Your task to perform on an android device: open device folders in google photos Image 0: 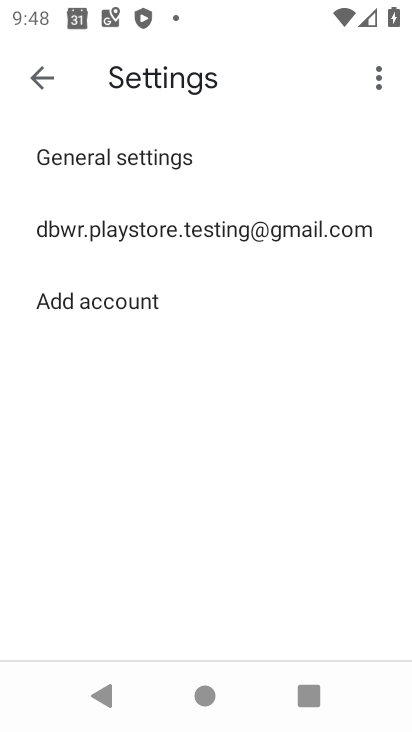
Step 0: press home button
Your task to perform on an android device: open device folders in google photos Image 1: 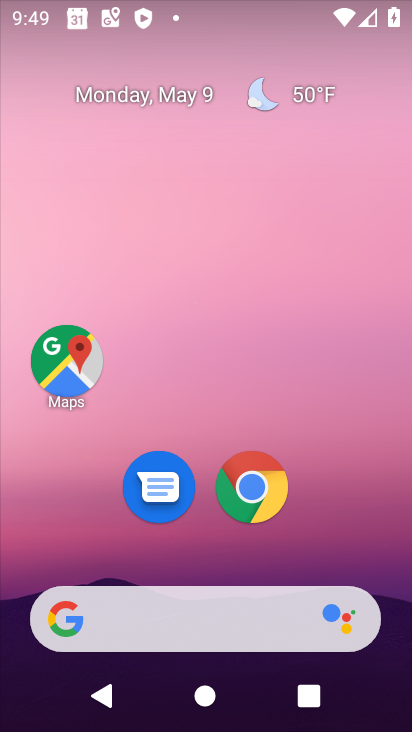
Step 1: drag from (53, 572) to (344, 136)
Your task to perform on an android device: open device folders in google photos Image 2: 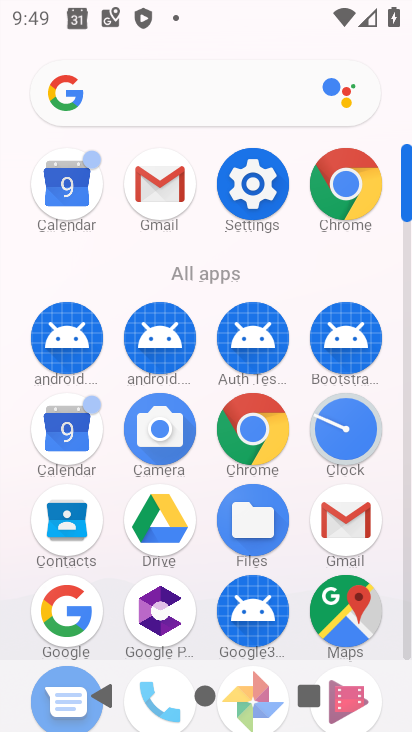
Step 2: drag from (13, 617) to (313, 250)
Your task to perform on an android device: open device folders in google photos Image 3: 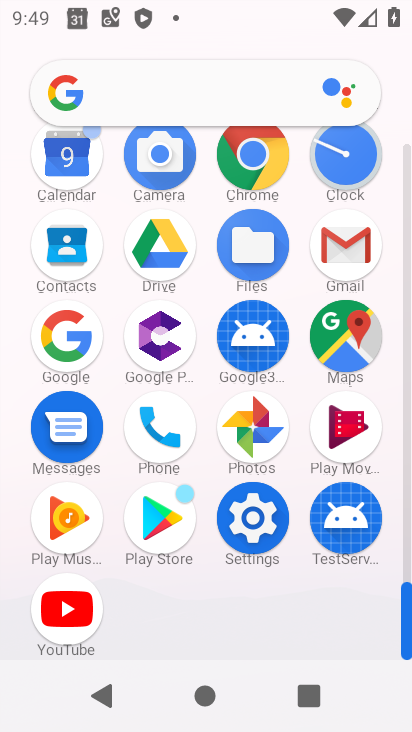
Step 3: click (257, 428)
Your task to perform on an android device: open device folders in google photos Image 4: 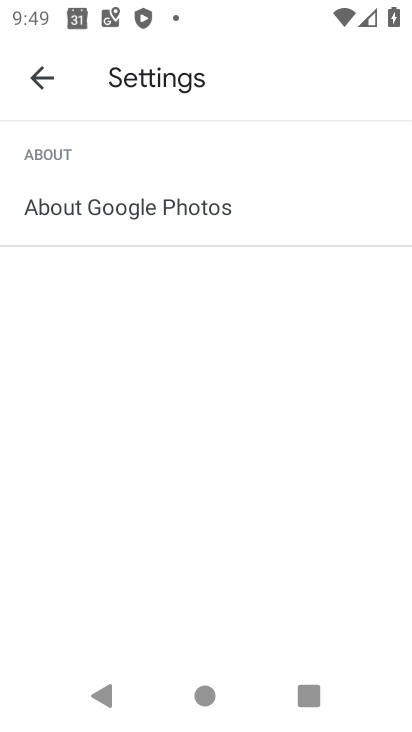
Step 4: press back button
Your task to perform on an android device: open device folders in google photos Image 5: 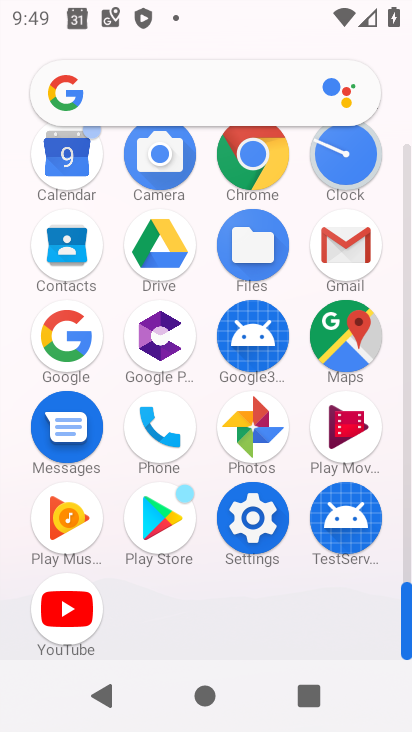
Step 5: click (260, 411)
Your task to perform on an android device: open device folders in google photos Image 6: 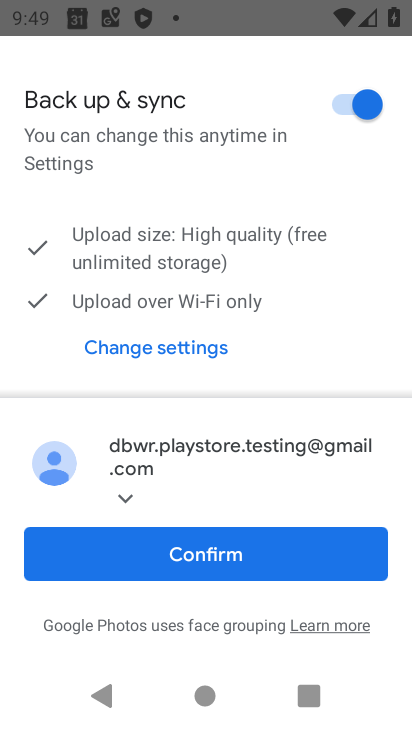
Step 6: click (112, 544)
Your task to perform on an android device: open device folders in google photos Image 7: 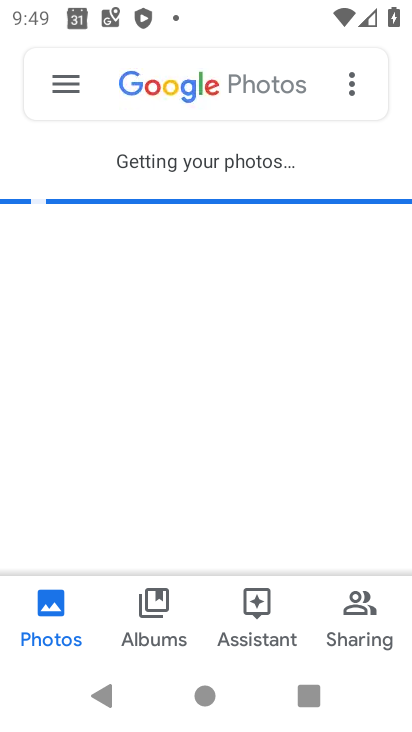
Step 7: click (29, 84)
Your task to perform on an android device: open device folders in google photos Image 8: 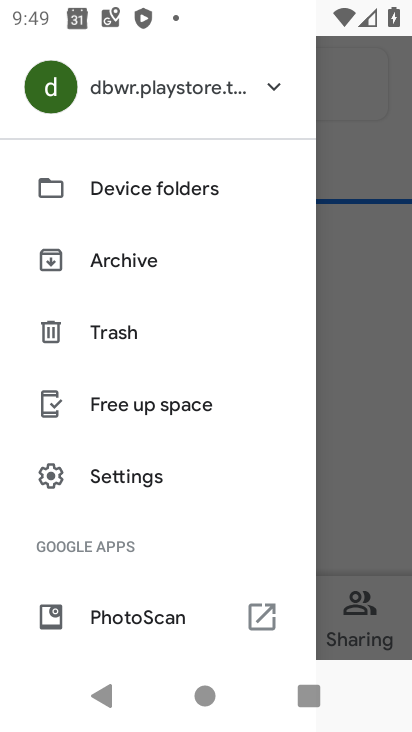
Step 8: click (128, 201)
Your task to perform on an android device: open device folders in google photos Image 9: 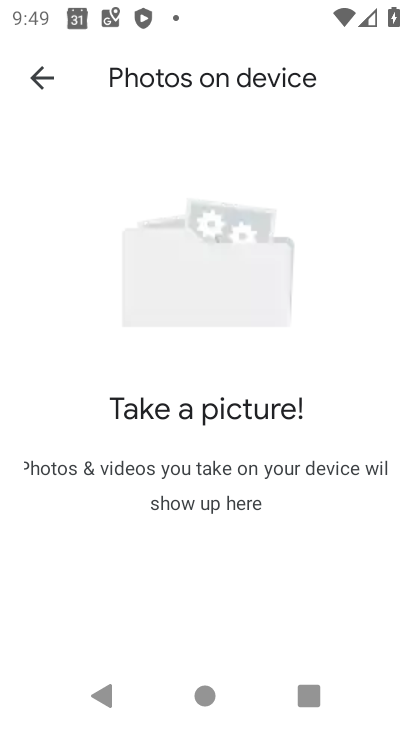
Step 9: task complete